Your task to perform on an android device: remove spam from my inbox in the gmail app Image 0: 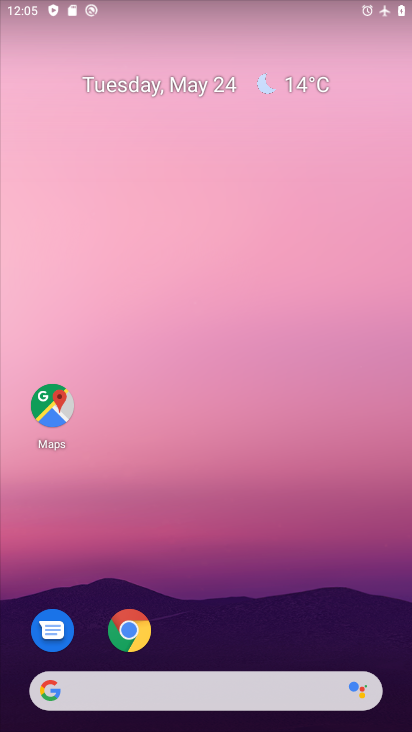
Step 0: drag from (339, 598) to (309, 148)
Your task to perform on an android device: remove spam from my inbox in the gmail app Image 1: 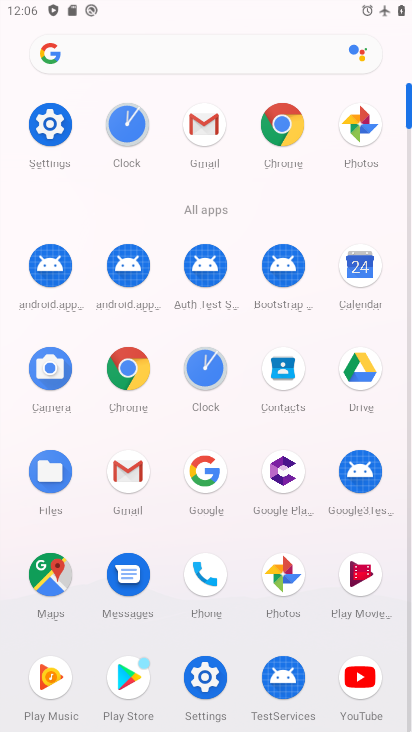
Step 1: click (107, 472)
Your task to perform on an android device: remove spam from my inbox in the gmail app Image 2: 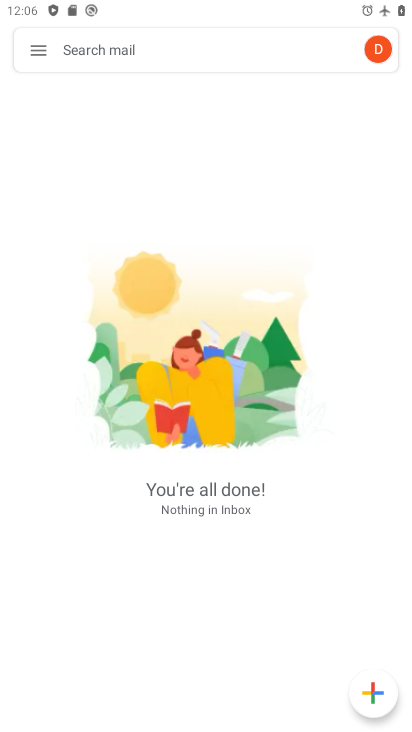
Step 2: click (38, 54)
Your task to perform on an android device: remove spam from my inbox in the gmail app Image 3: 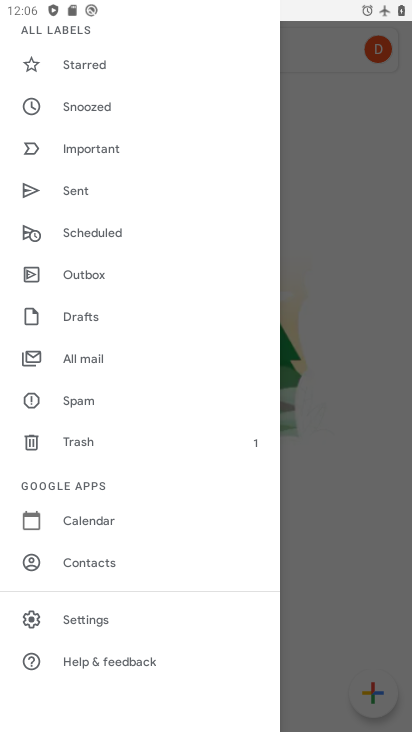
Step 3: click (108, 397)
Your task to perform on an android device: remove spam from my inbox in the gmail app Image 4: 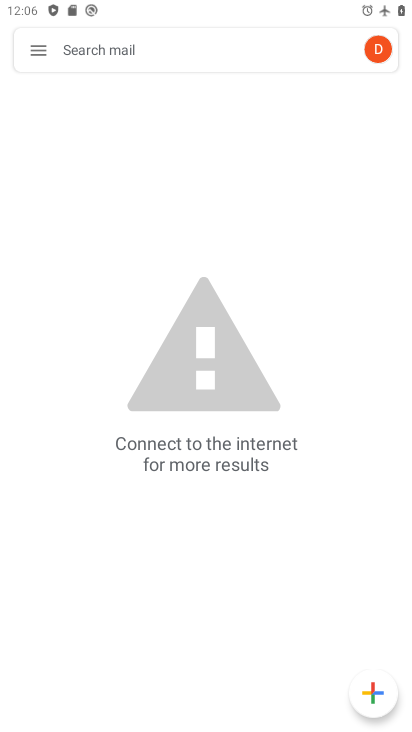
Step 4: task complete